Your task to perform on an android device: open chrome privacy settings Image 0: 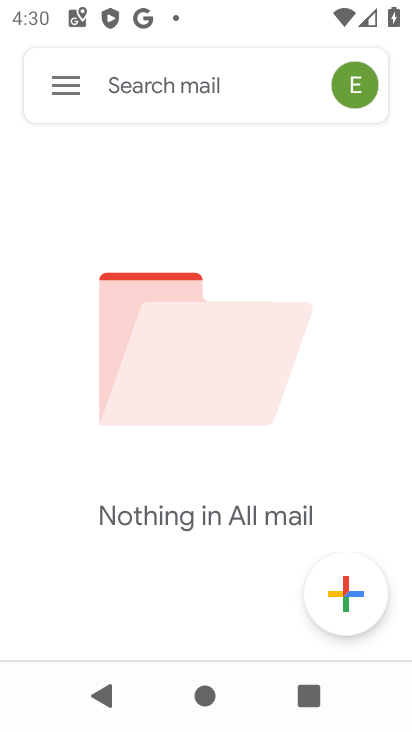
Step 0: press back button
Your task to perform on an android device: open chrome privacy settings Image 1: 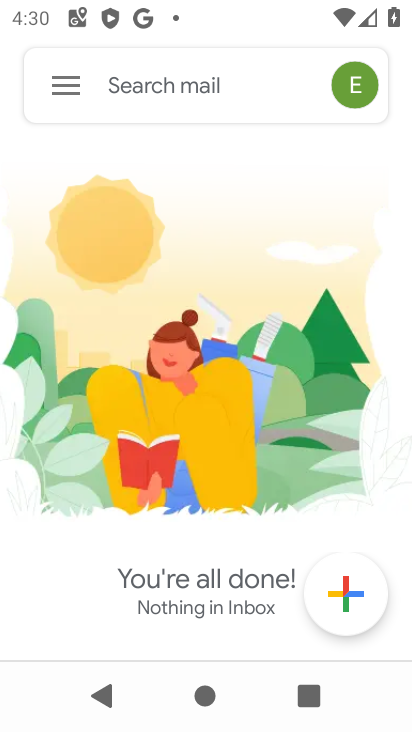
Step 1: press back button
Your task to perform on an android device: open chrome privacy settings Image 2: 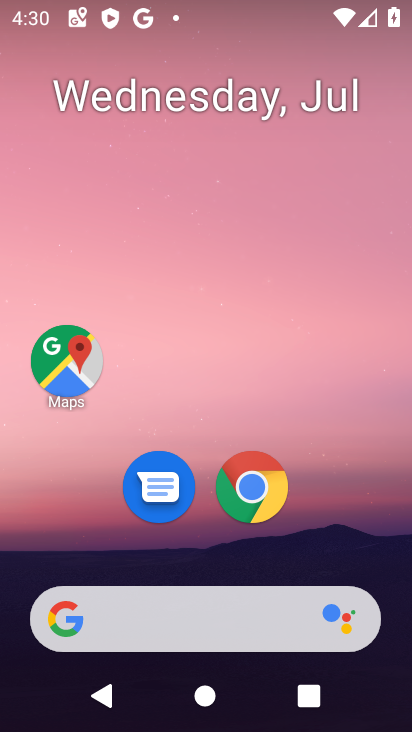
Step 2: click (261, 476)
Your task to perform on an android device: open chrome privacy settings Image 3: 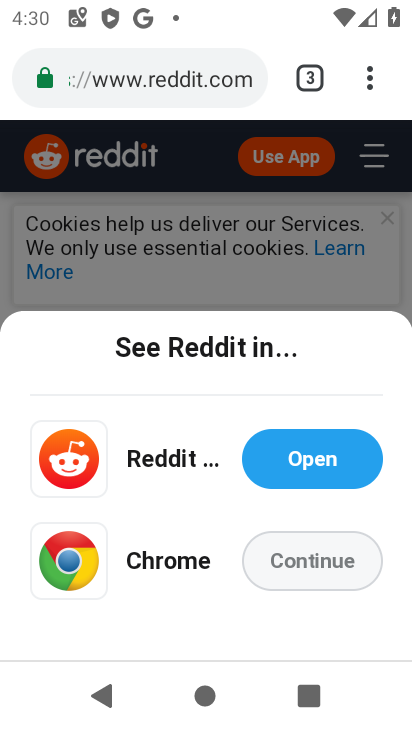
Step 3: drag from (368, 79) to (94, 541)
Your task to perform on an android device: open chrome privacy settings Image 4: 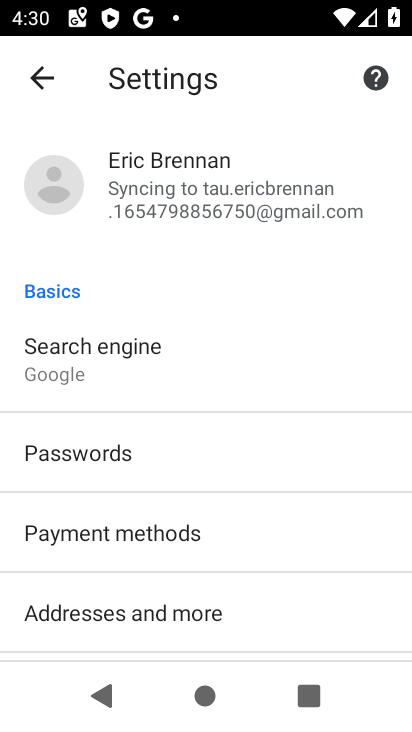
Step 4: drag from (109, 600) to (180, 208)
Your task to perform on an android device: open chrome privacy settings Image 5: 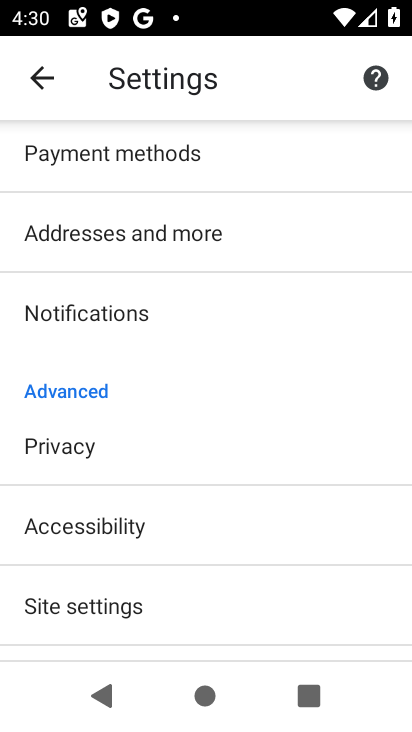
Step 5: click (81, 459)
Your task to perform on an android device: open chrome privacy settings Image 6: 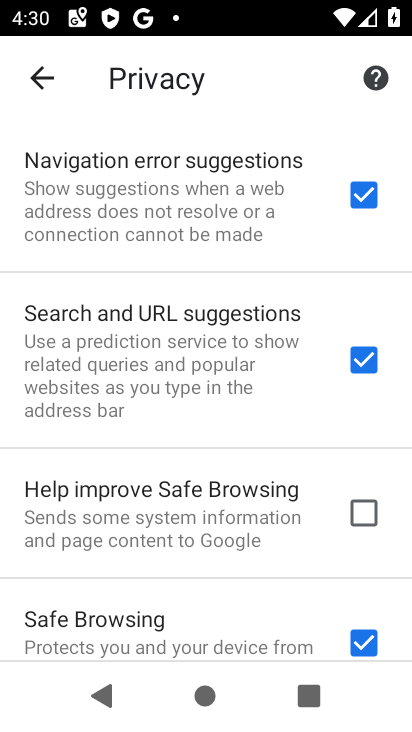
Step 6: task complete